Your task to perform on an android device: Open settings on Google Maps Image 0: 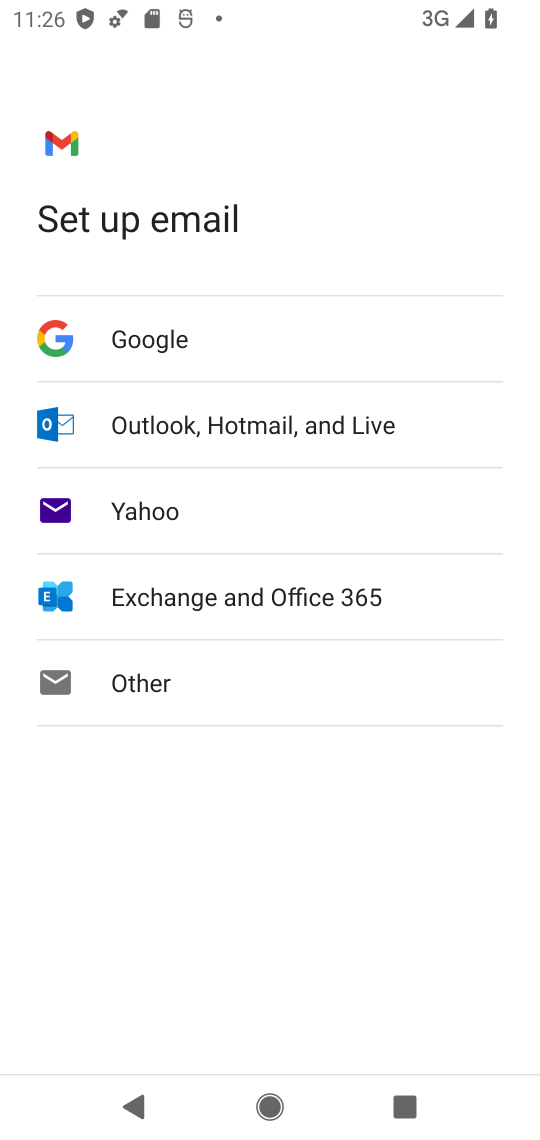
Step 0: press home button
Your task to perform on an android device: Open settings on Google Maps Image 1: 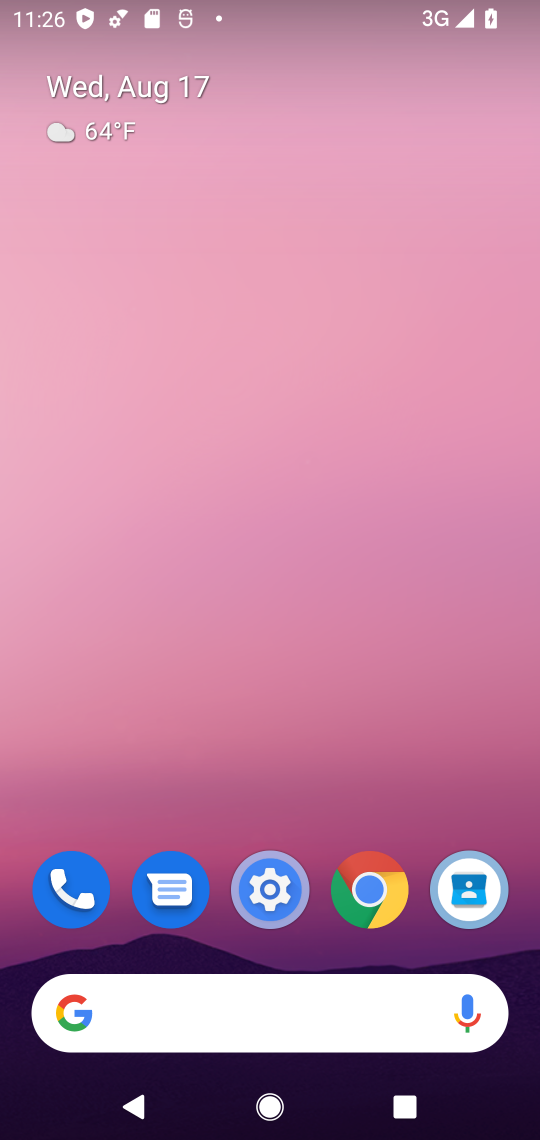
Step 1: drag from (294, 795) to (384, 1)
Your task to perform on an android device: Open settings on Google Maps Image 2: 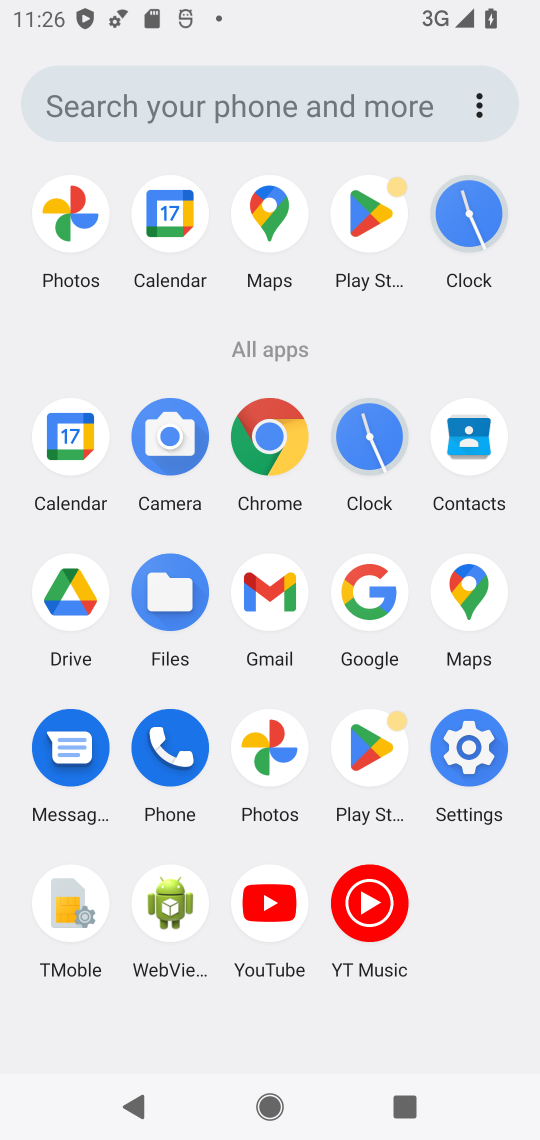
Step 2: click (279, 204)
Your task to perform on an android device: Open settings on Google Maps Image 3: 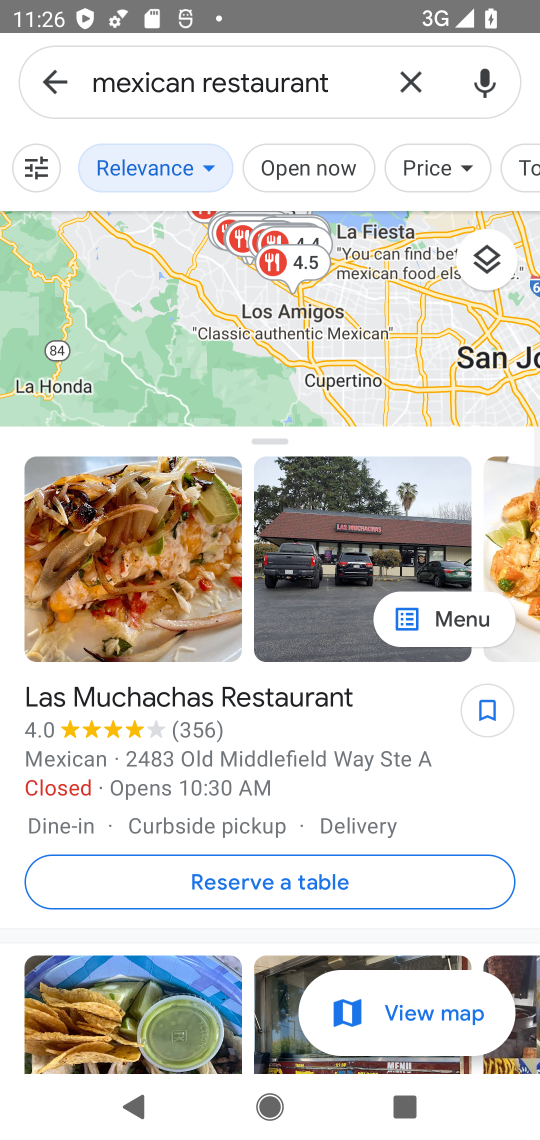
Step 3: click (55, 74)
Your task to perform on an android device: Open settings on Google Maps Image 4: 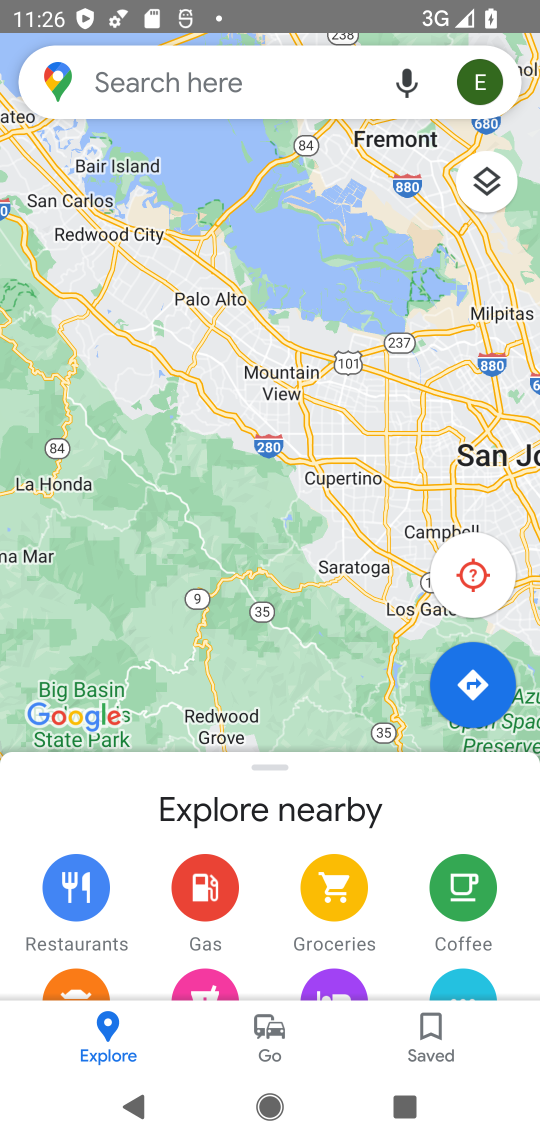
Step 4: click (57, 82)
Your task to perform on an android device: Open settings on Google Maps Image 5: 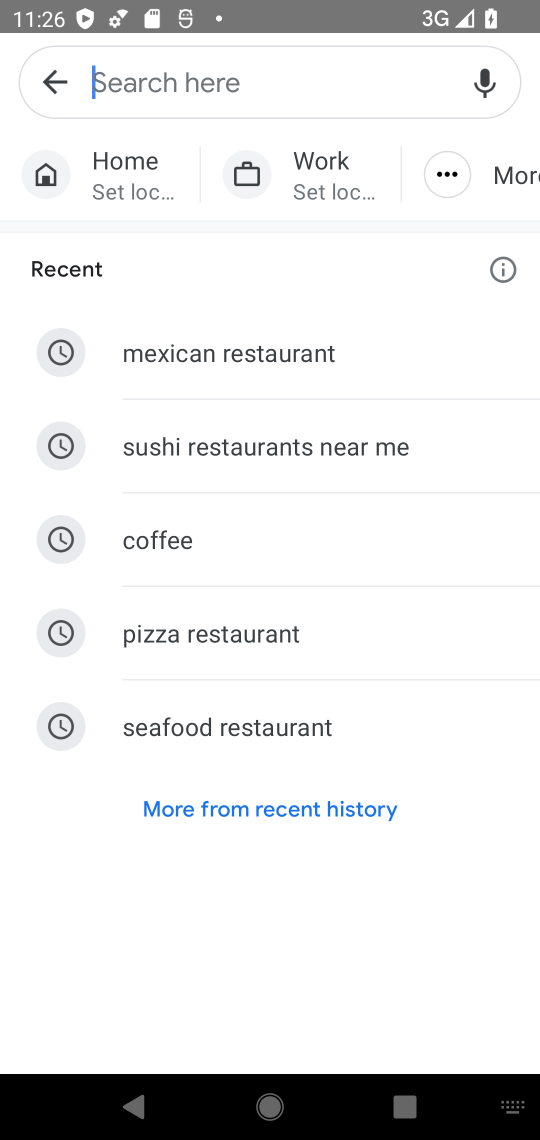
Step 5: click (57, 80)
Your task to perform on an android device: Open settings on Google Maps Image 6: 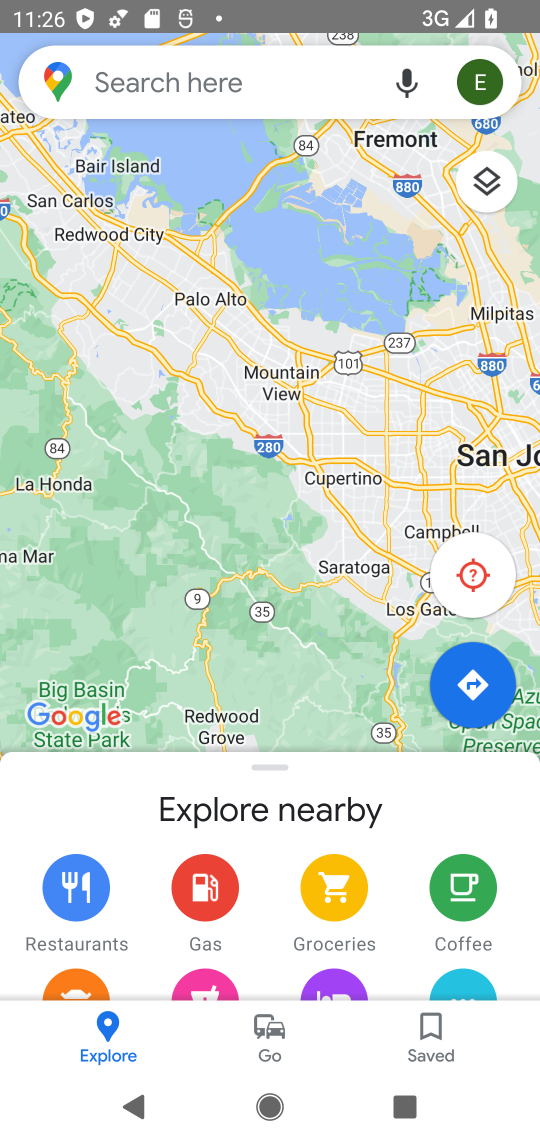
Step 6: click (480, 70)
Your task to perform on an android device: Open settings on Google Maps Image 7: 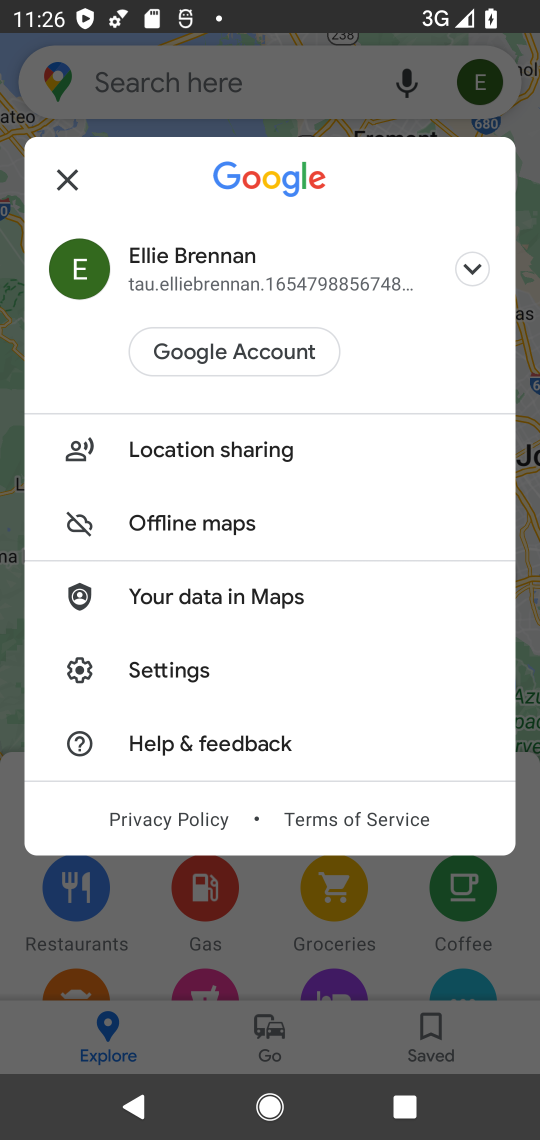
Step 7: click (192, 678)
Your task to perform on an android device: Open settings on Google Maps Image 8: 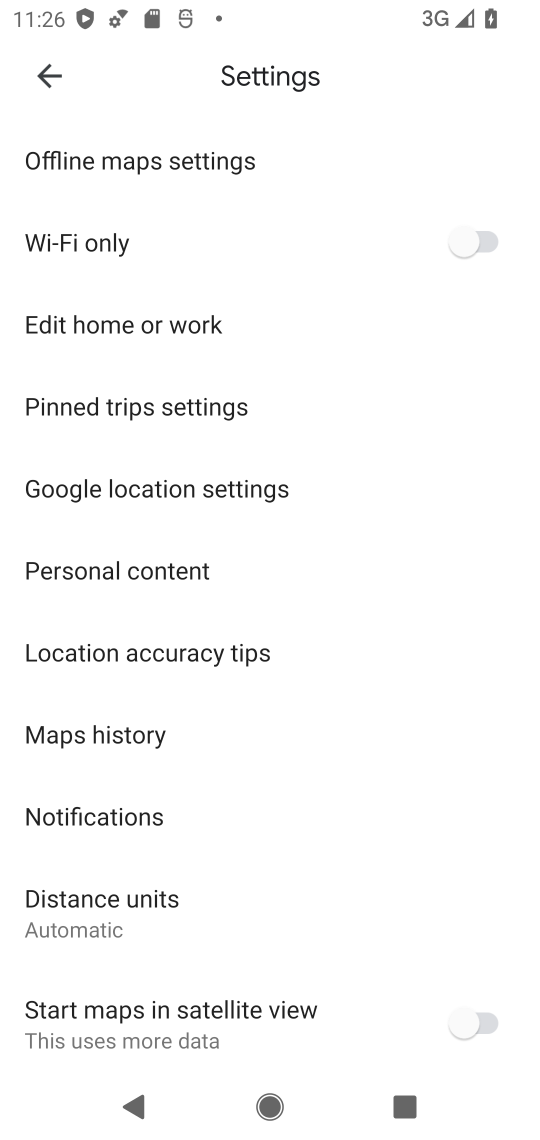
Step 8: task complete